Your task to perform on an android device: Open Google Image 0: 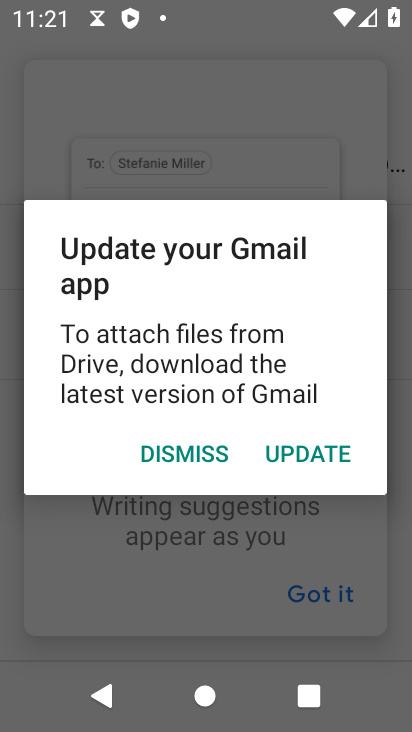
Step 0: press back button
Your task to perform on an android device: Open Google Image 1: 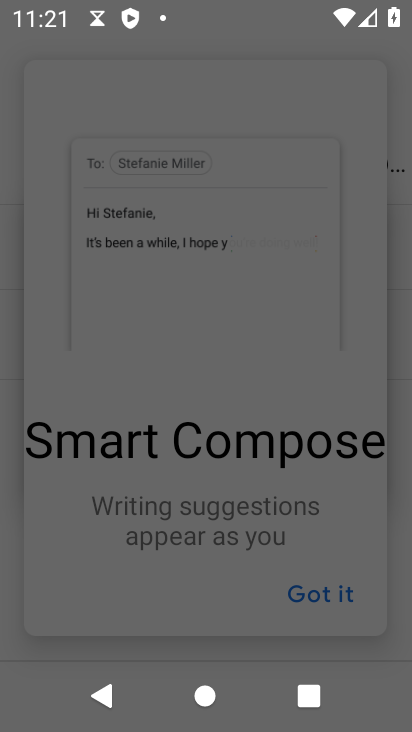
Step 1: press home button
Your task to perform on an android device: Open Google Image 2: 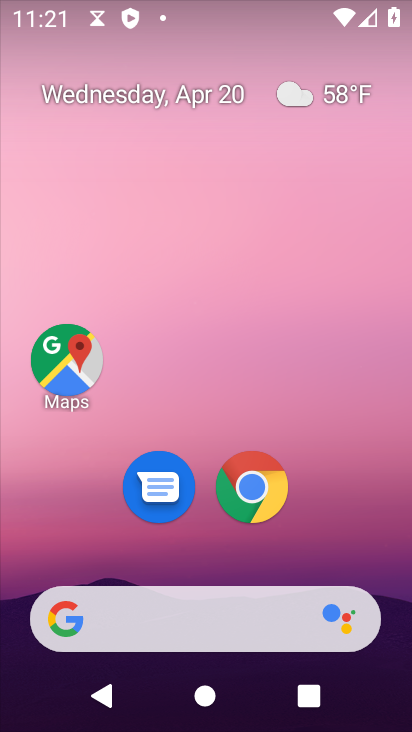
Step 2: drag from (302, 422) to (236, 64)
Your task to perform on an android device: Open Google Image 3: 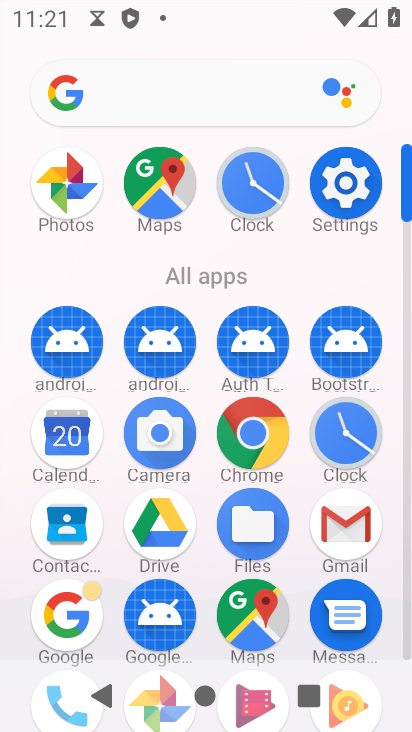
Step 3: drag from (13, 536) to (6, 320)
Your task to perform on an android device: Open Google Image 4: 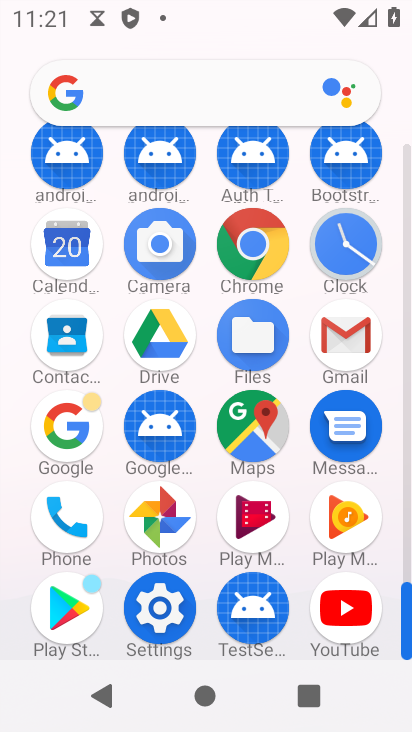
Step 4: drag from (0, 464) to (4, 307)
Your task to perform on an android device: Open Google Image 5: 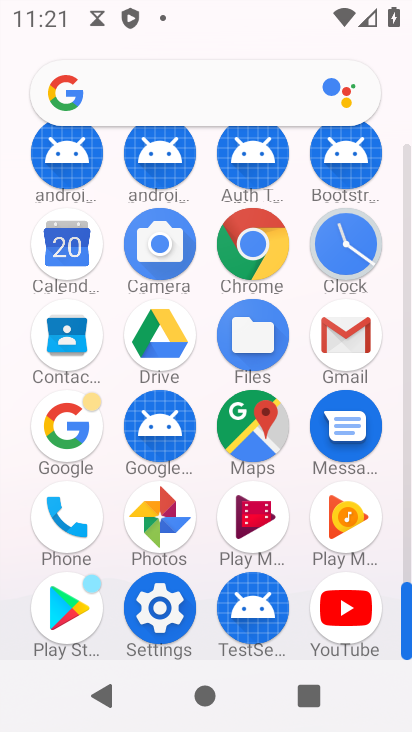
Step 5: click (250, 242)
Your task to perform on an android device: Open Google Image 6: 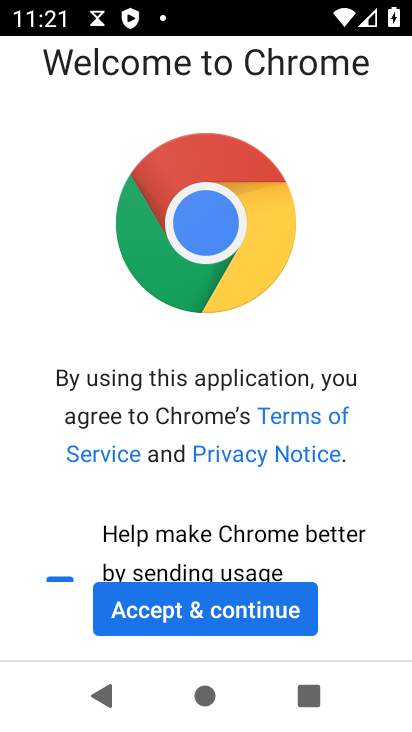
Step 6: click (203, 585)
Your task to perform on an android device: Open Google Image 7: 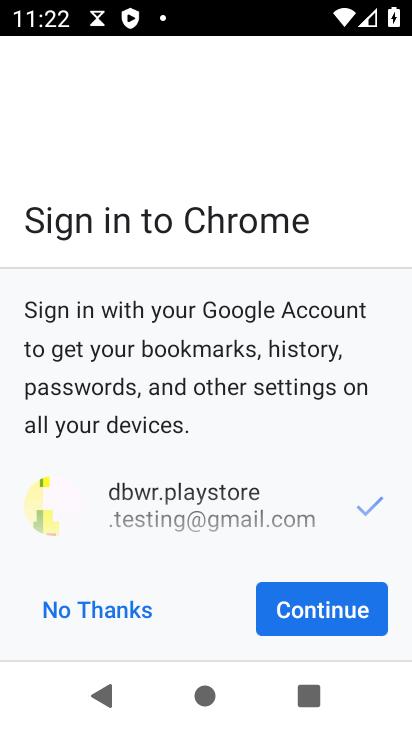
Step 7: click (314, 609)
Your task to perform on an android device: Open Google Image 8: 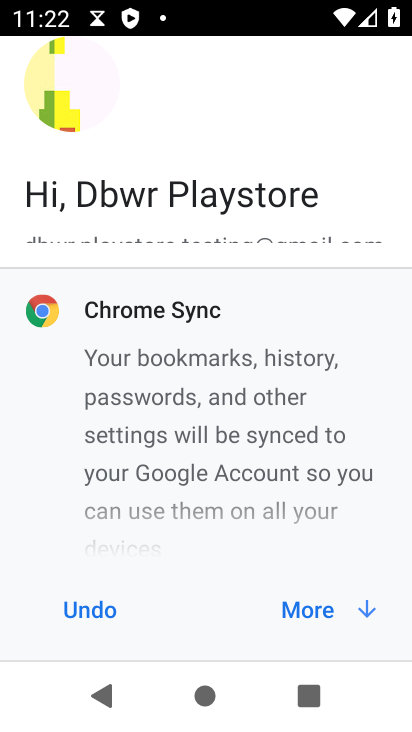
Step 8: click (312, 604)
Your task to perform on an android device: Open Google Image 9: 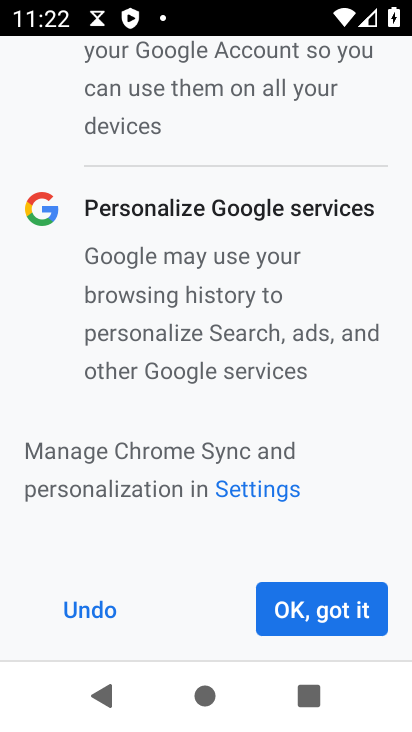
Step 9: click (312, 604)
Your task to perform on an android device: Open Google Image 10: 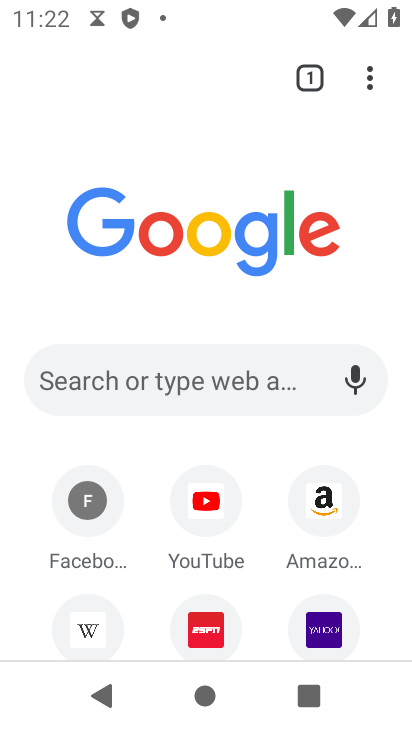
Step 10: click (168, 384)
Your task to perform on an android device: Open Google Image 11: 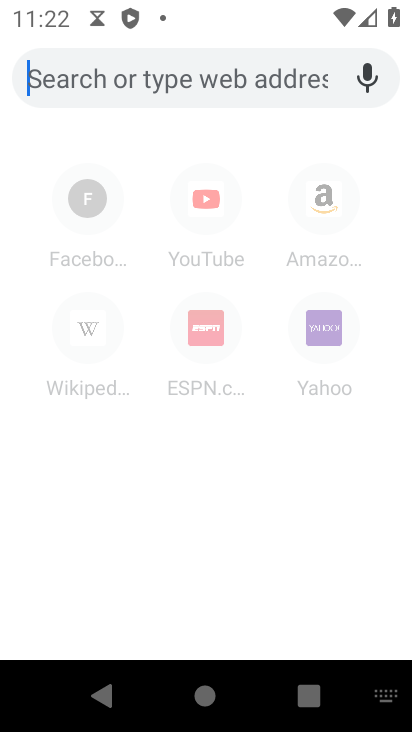
Step 11: type "Google"
Your task to perform on an android device: Open Google Image 12: 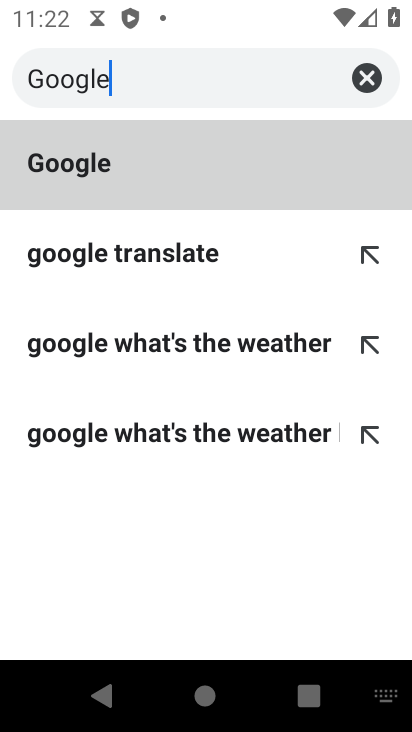
Step 12: type ""
Your task to perform on an android device: Open Google Image 13: 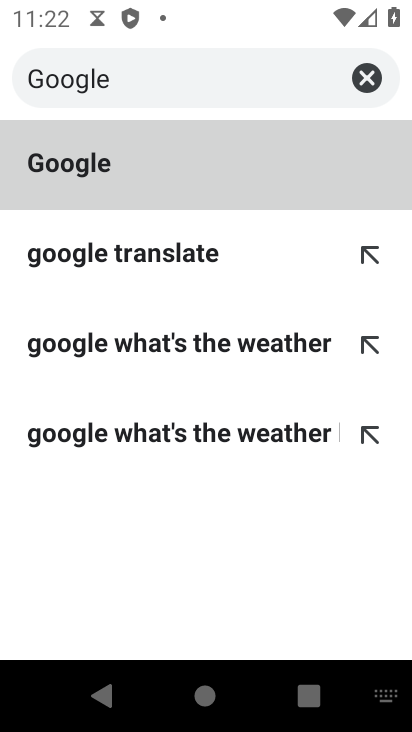
Step 13: click (89, 168)
Your task to perform on an android device: Open Google Image 14: 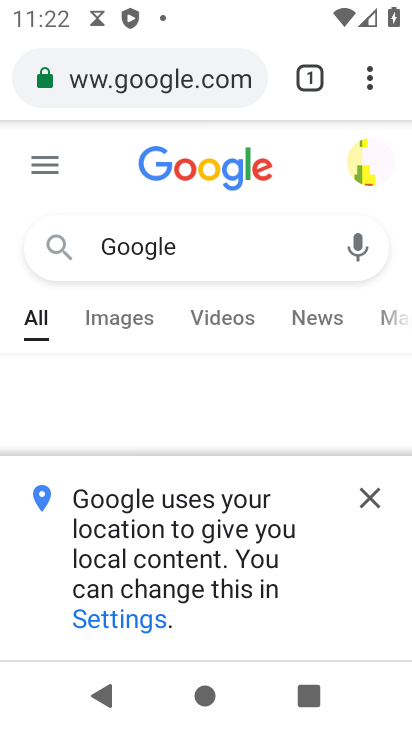
Step 14: drag from (194, 429) to (219, 167)
Your task to perform on an android device: Open Google Image 15: 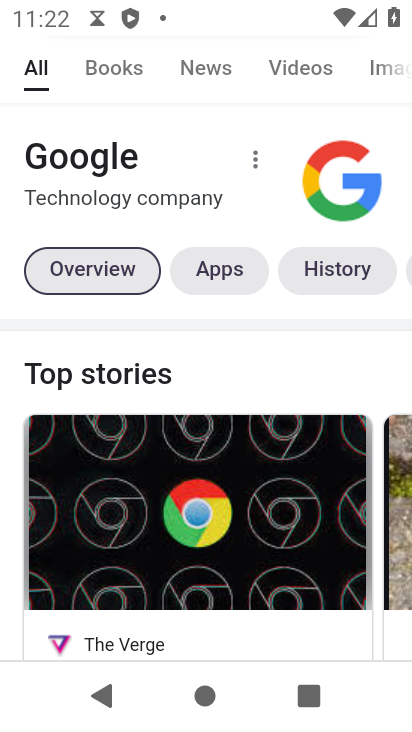
Step 15: drag from (202, 466) to (227, 163)
Your task to perform on an android device: Open Google Image 16: 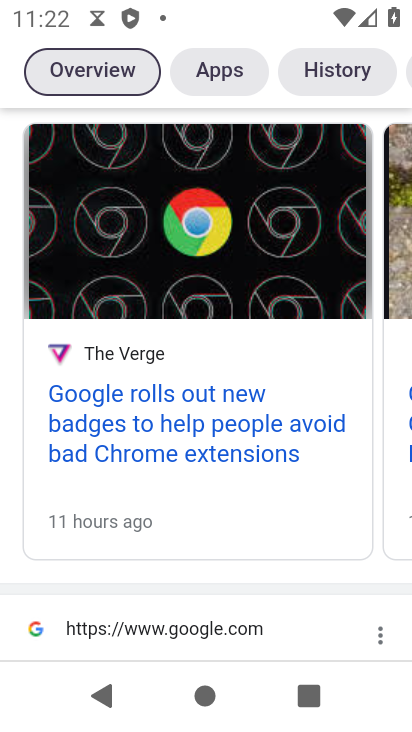
Step 16: drag from (237, 492) to (248, 213)
Your task to perform on an android device: Open Google Image 17: 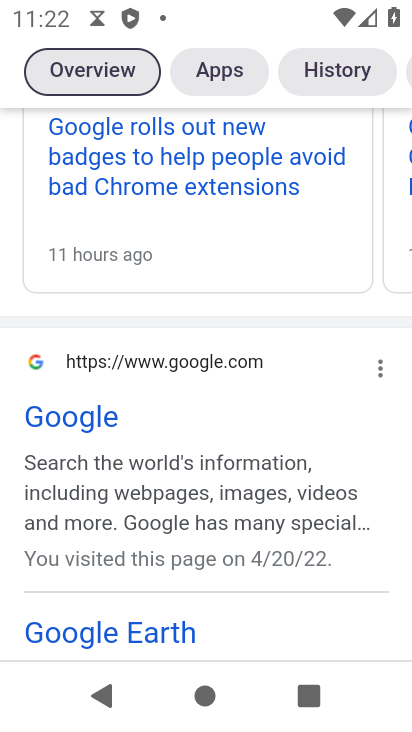
Step 17: click (59, 421)
Your task to perform on an android device: Open Google Image 18: 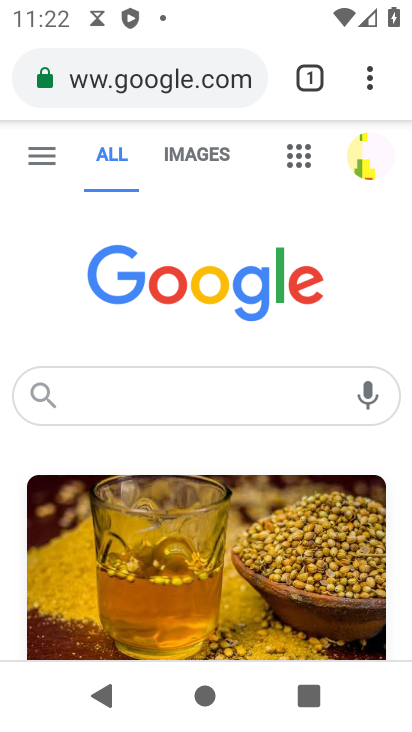
Step 18: task complete